Your task to perform on an android device: all mails in gmail Image 0: 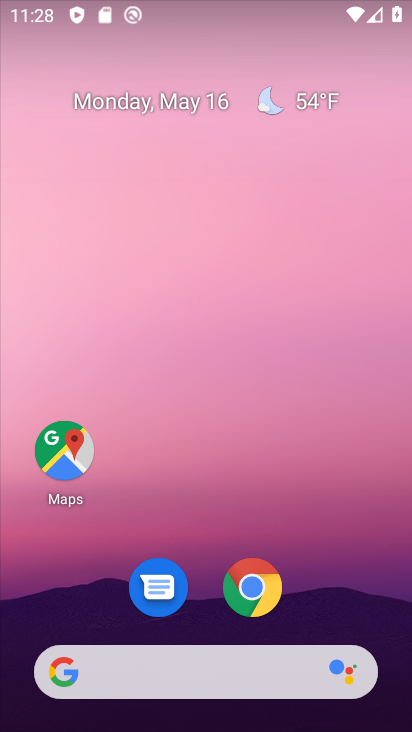
Step 0: drag from (187, 600) to (291, 133)
Your task to perform on an android device: all mails in gmail Image 1: 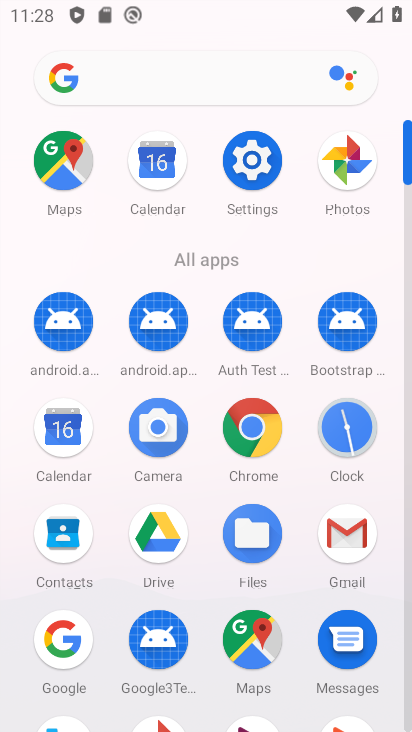
Step 1: click (368, 524)
Your task to perform on an android device: all mails in gmail Image 2: 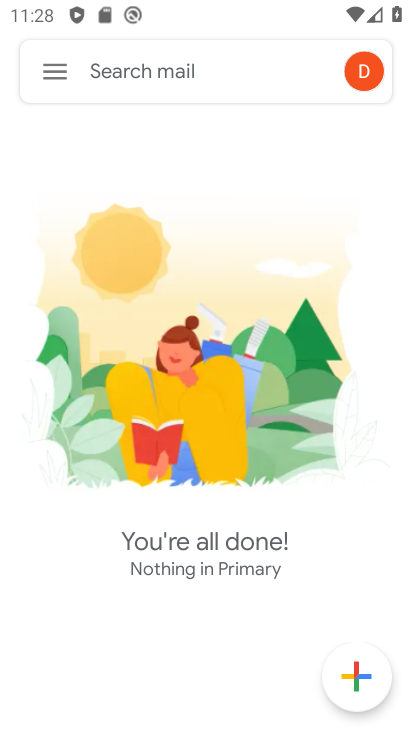
Step 2: click (54, 77)
Your task to perform on an android device: all mails in gmail Image 3: 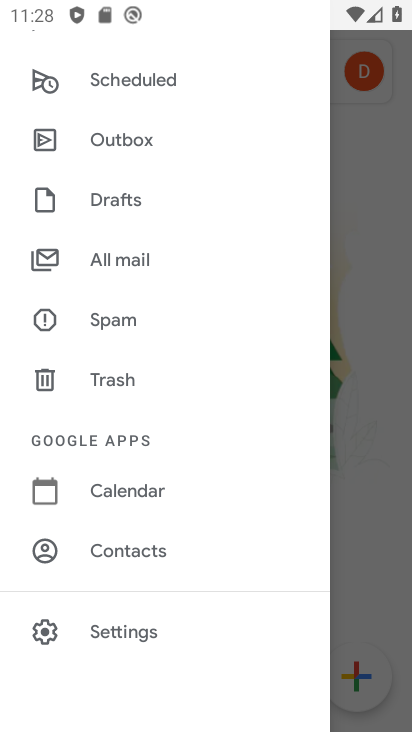
Step 3: click (118, 265)
Your task to perform on an android device: all mails in gmail Image 4: 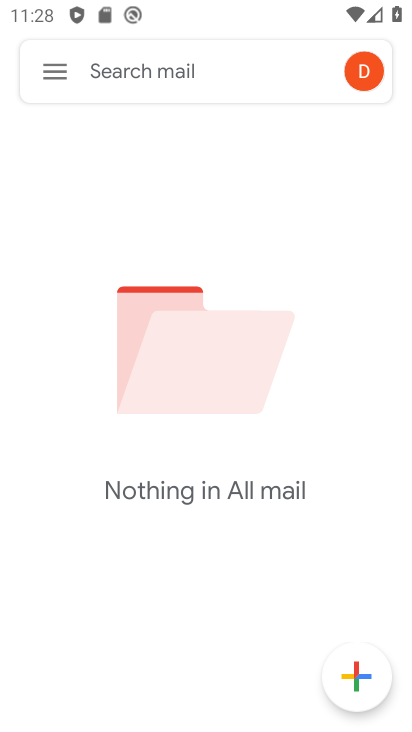
Step 4: task complete